Your task to perform on an android device: Open internet settings Image 0: 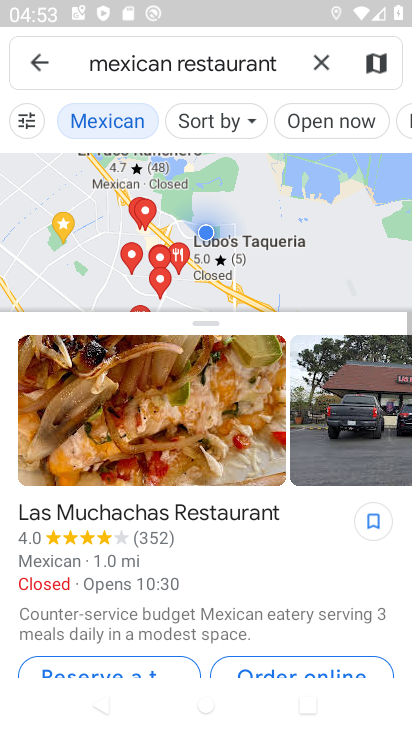
Step 0: press home button
Your task to perform on an android device: Open internet settings Image 1: 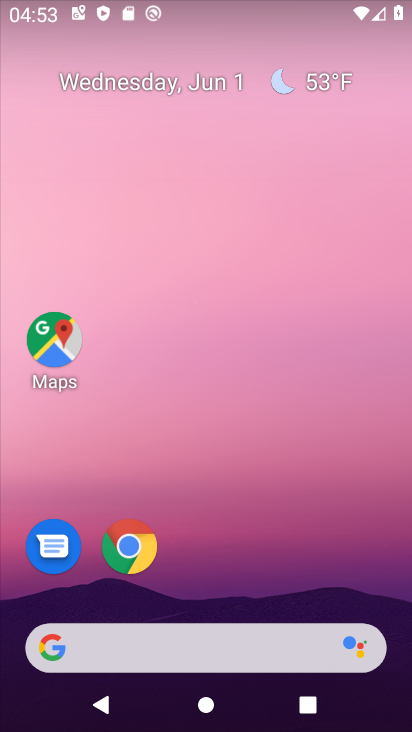
Step 1: drag from (230, 504) to (159, 101)
Your task to perform on an android device: Open internet settings Image 2: 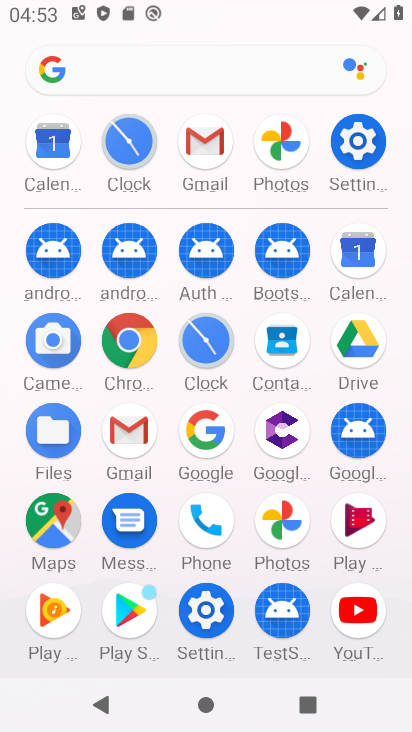
Step 2: click (358, 137)
Your task to perform on an android device: Open internet settings Image 3: 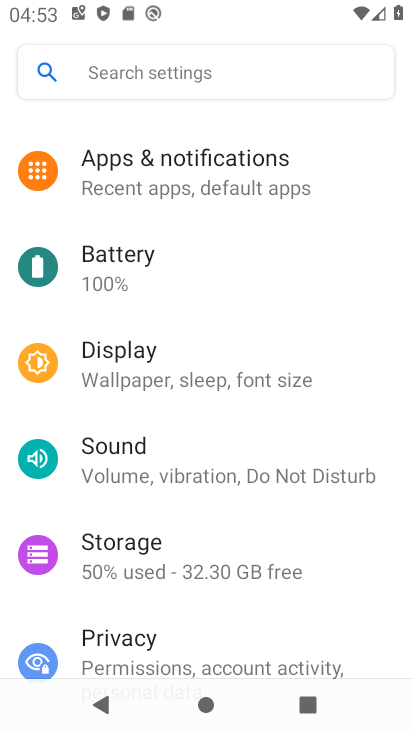
Step 3: drag from (207, 212) to (270, 533)
Your task to perform on an android device: Open internet settings Image 4: 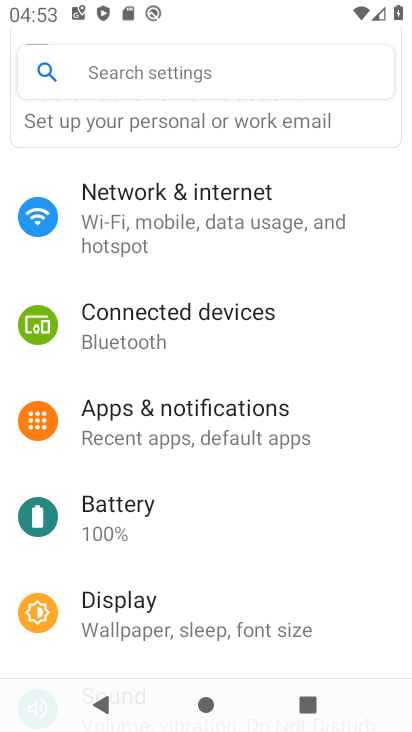
Step 4: click (185, 226)
Your task to perform on an android device: Open internet settings Image 5: 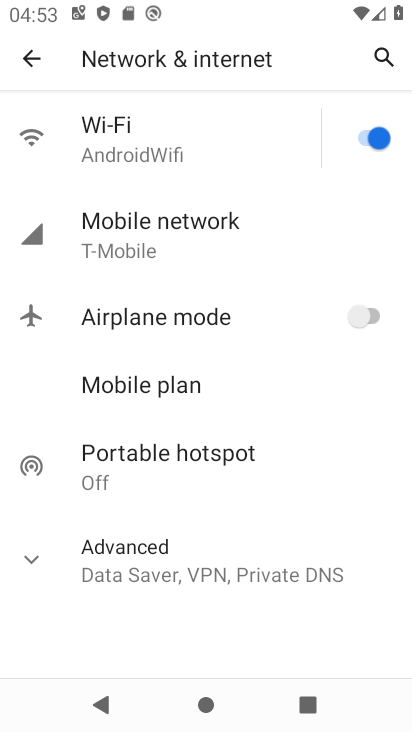
Step 5: click (143, 216)
Your task to perform on an android device: Open internet settings Image 6: 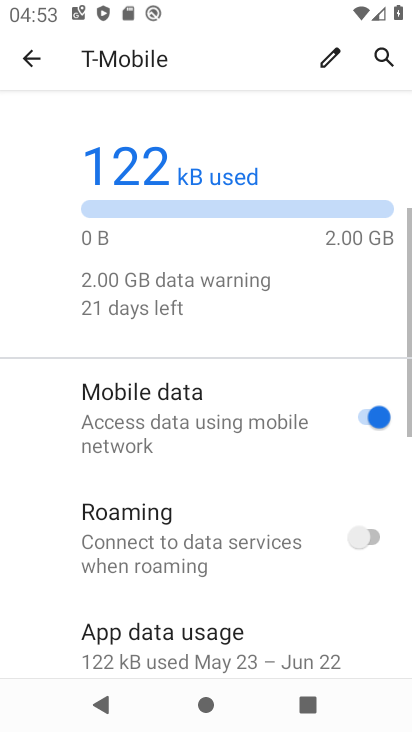
Step 6: task complete